Your task to perform on an android device: Open Google Maps Image 0: 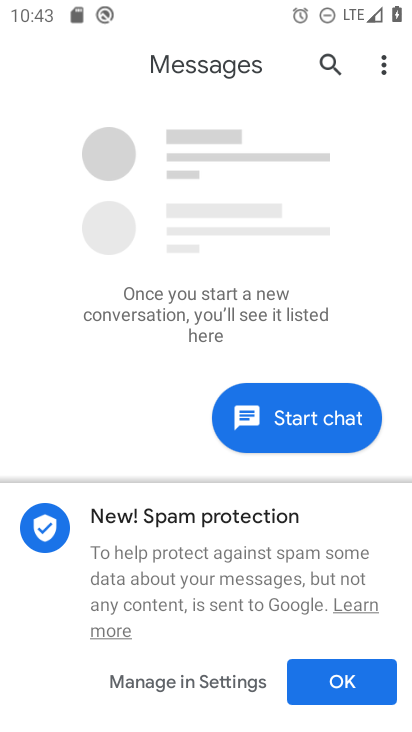
Step 0: press home button
Your task to perform on an android device: Open Google Maps Image 1: 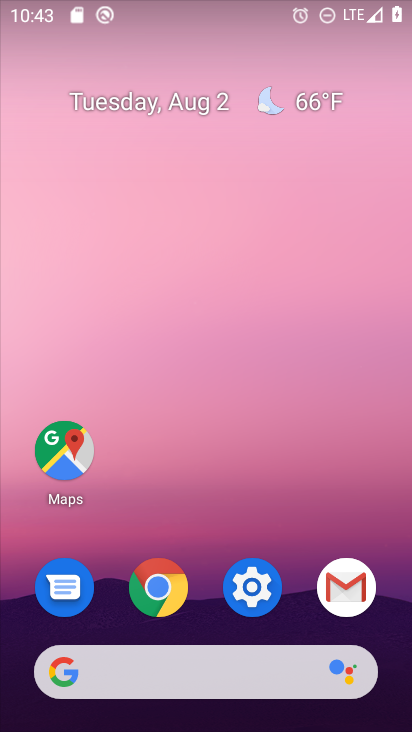
Step 1: click (78, 439)
Your task to perform on an android device: Open Google Maps Image 2: 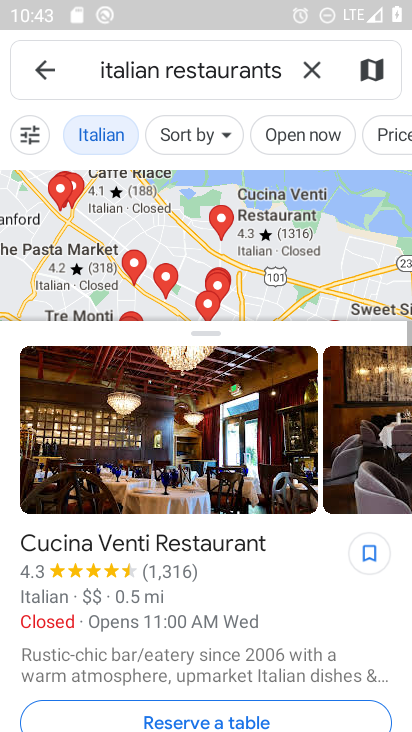
Step 2: click (321, 72)
Your task to perform on an android device: Open Google Maps Image 3: 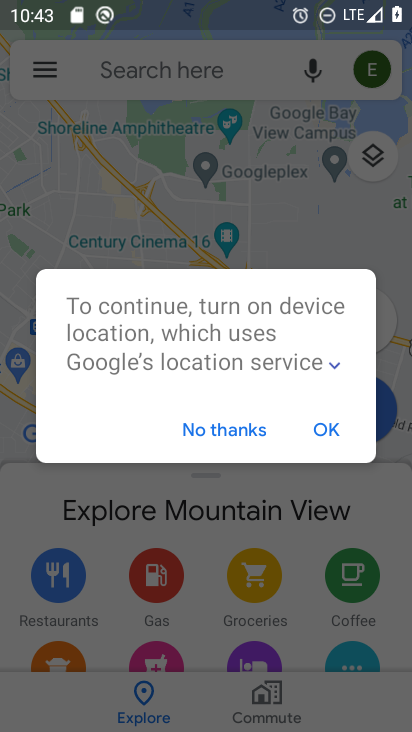
Step 3: click (260, 427)
Your task to perform on an android device: Open Google Maps Image 4: 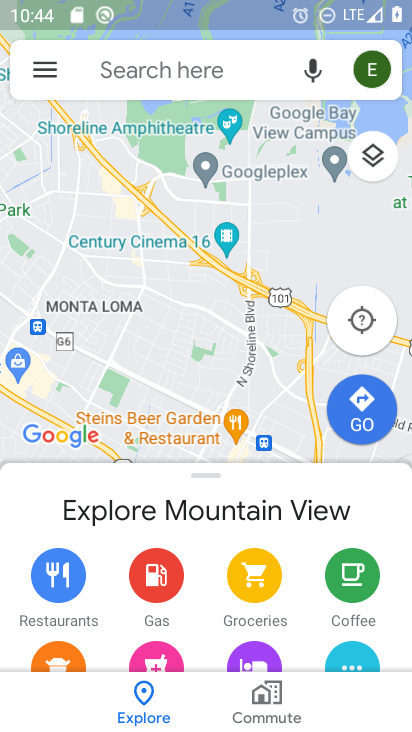
Step 4: task complete